Your task to perform on an android device: Open privacy settings Image 0: 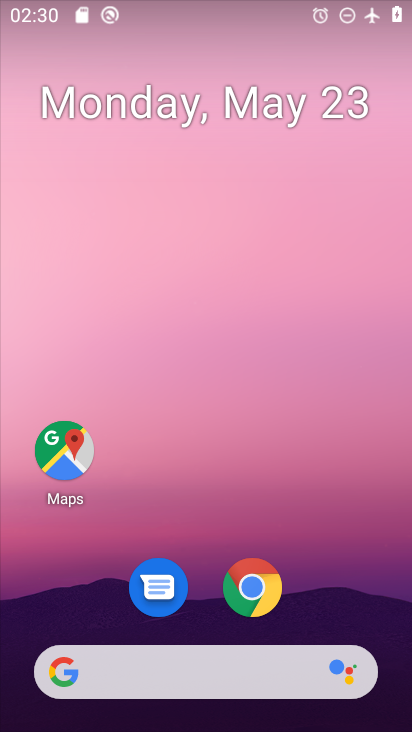
Step 0: drag from (332, 622) to (88, 0)
Your task to perform on an android device: Open privacy settings Image 1: 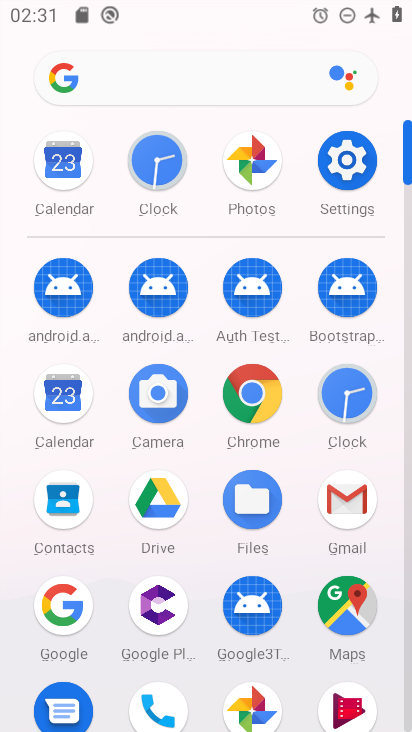
Step 1: click (342, 159)
Your task to perform on an android device: Open privacy settings Image 2: 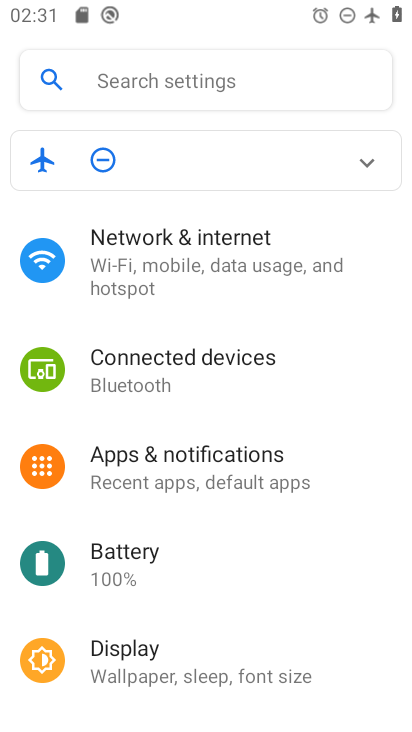
Step 2: drag from (256, 628) to (173, 87)
Your task to perform on an android device: Open privacy settings Image 3: 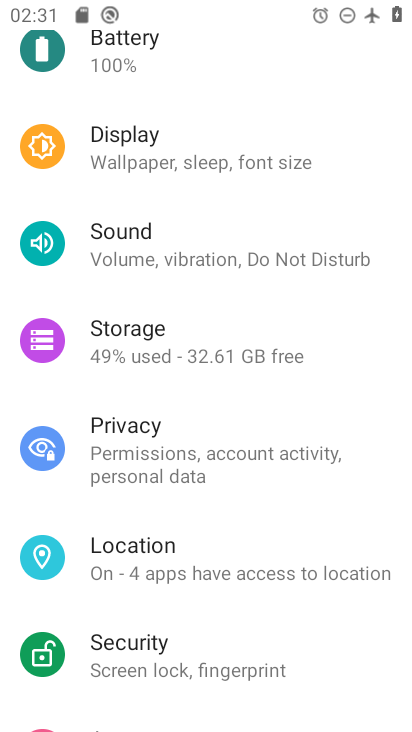
Step 3: click (180, 485)
Your task to perform on an android device: Open privacy settings Image 4: 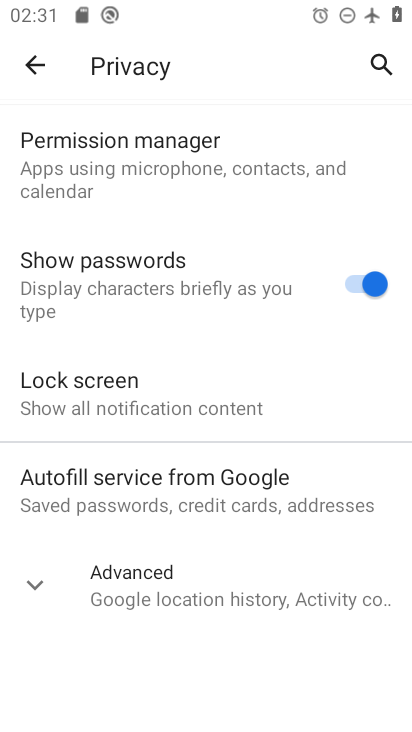
Step 4: task complete